Your task to perform on an android device: What's the weather? Image 0: 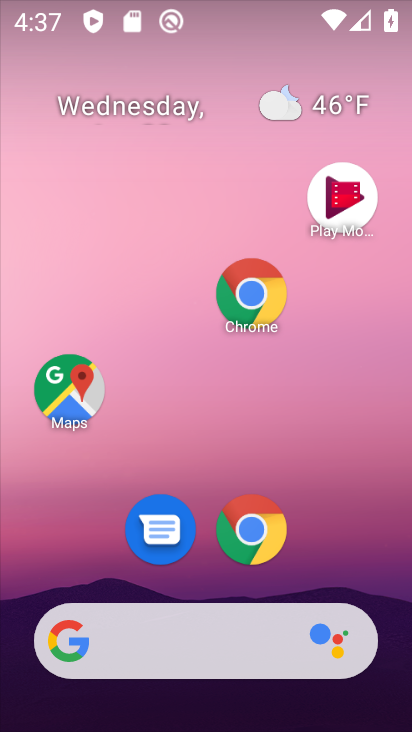
Step 0: click (248, 525)
Your task to perform on an android device: What's the weather? Image 1: 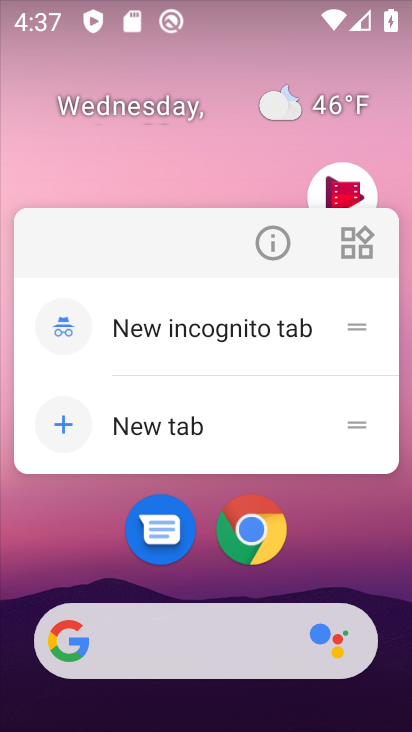
Step 1: click (247, 541)
Your task to perform on an android device: What's the weather? Image 2: 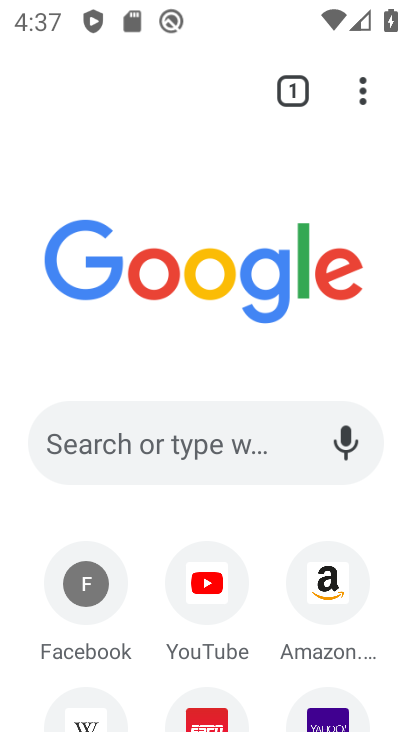
Step 2: click (218, 461)
Your task to perform on an android device: What's the weather? Image 3: 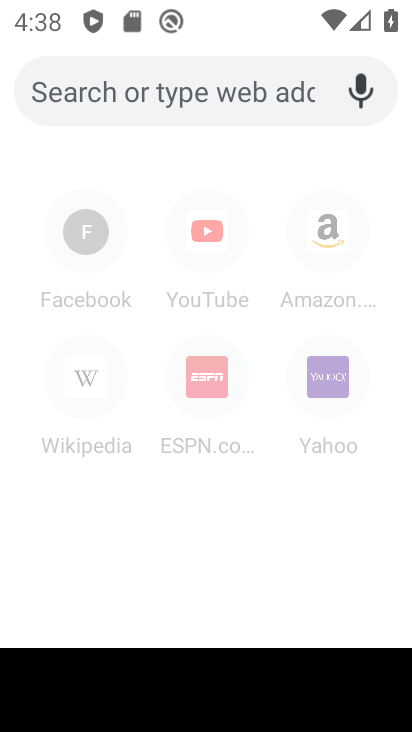
Step 3: type "what's the weather?"
Your task to perform on an android device: What's the weather? Image 4: 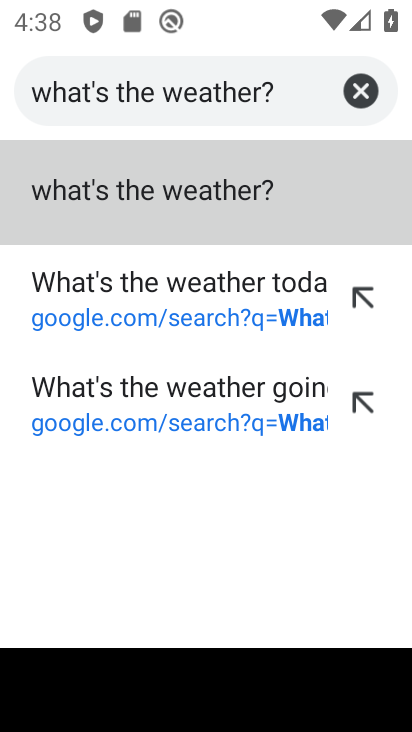
Step 4: click (198, 188)
Your task to perform on an android device: What's the weather? Image 5: 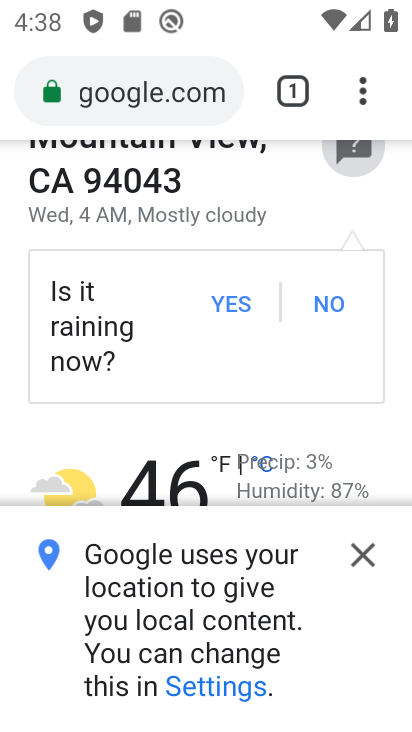
Step 5: click (368, 568)
Your task to perform on an android device: What's the weather? Image 6: 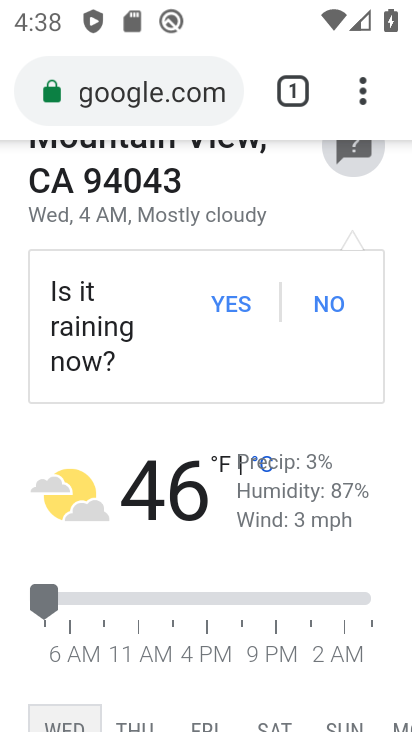
Step 6: task complete